Your task to perform on an android device: Search for seafood restaurants on Google Maps Image 0: 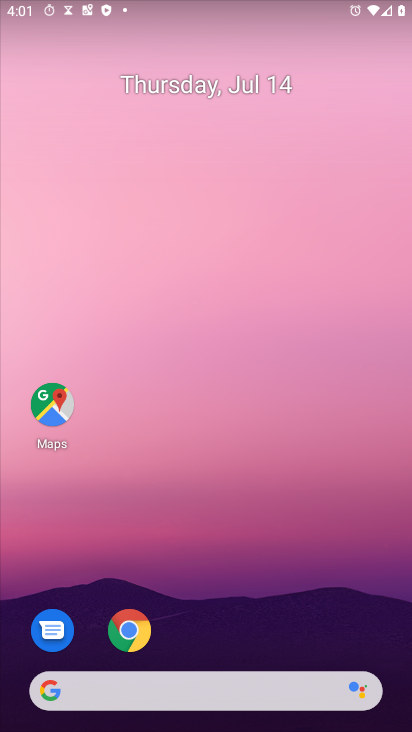
Step 0: drag from (226, 713) to (218, 147)
Your task to perform on an android device: Search for seafood restaurants on Google Maps Image 1: 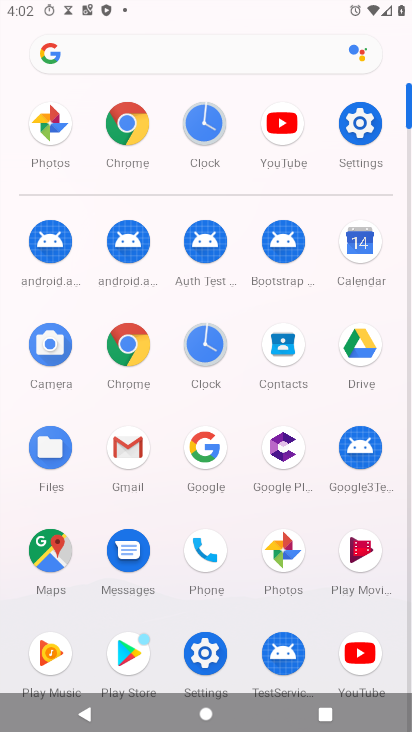
Step 1: click (41, 555)
Your task to perform on an android device: Search for seafood restaurants on Google Maps Image 2: 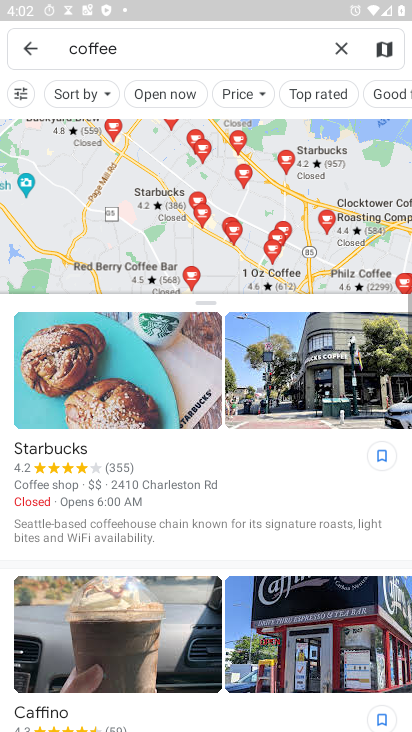
Step 2: click (338, 45)
Your task to perform on an android device: Search for seafood restaurants on Google Maps Image 3: 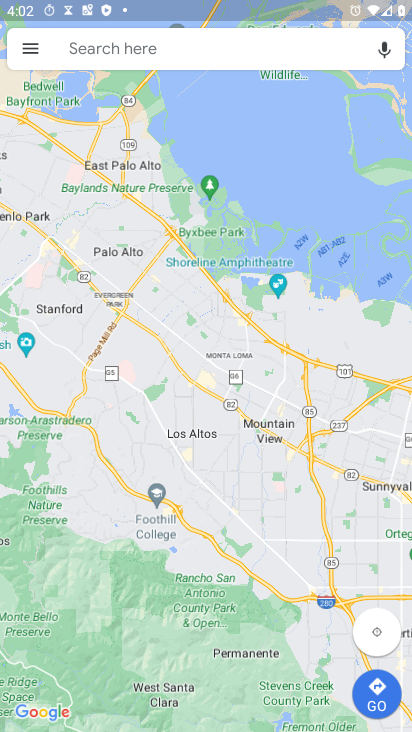
Step 3: click (158, 48)
Your task to perform on an android device: Search for seafood restaurants on Google Maps Image 4: 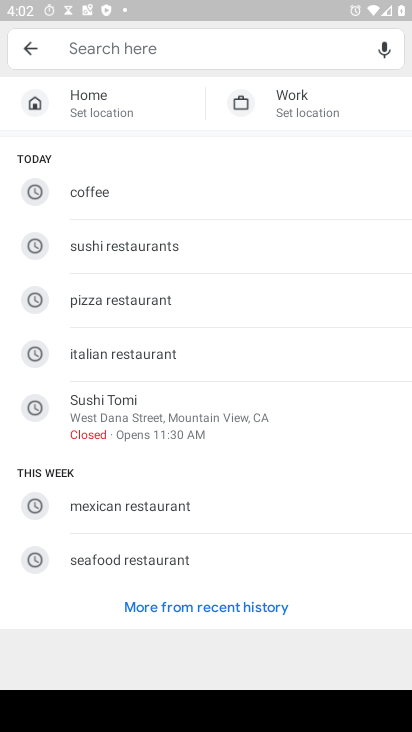
Step 4: type "seafood restaurants"
Your task to perform on an android device: Search for seafood restaurants on Google Maps Image 5: 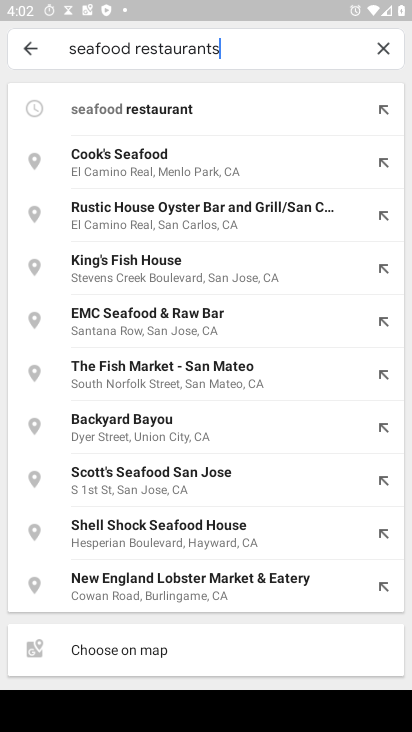
Step 5: click (132, 108)
Your task to perform on an android device: Search for seafood restaurants on Google Maps Image 6: 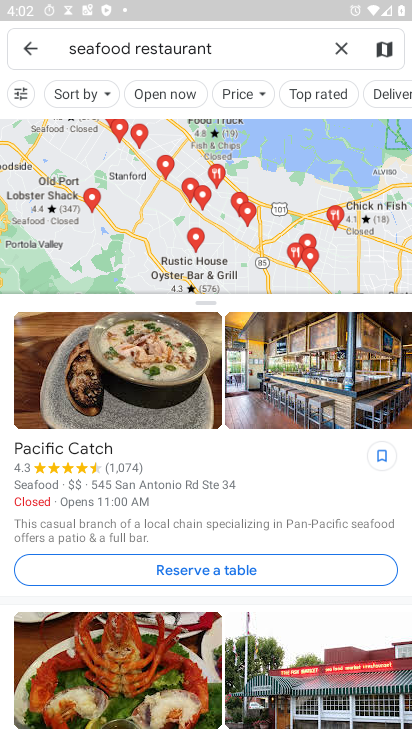
Step 6: task complete